Your task to perform on an android device: What's on my calendar tomorrow? Image 0: 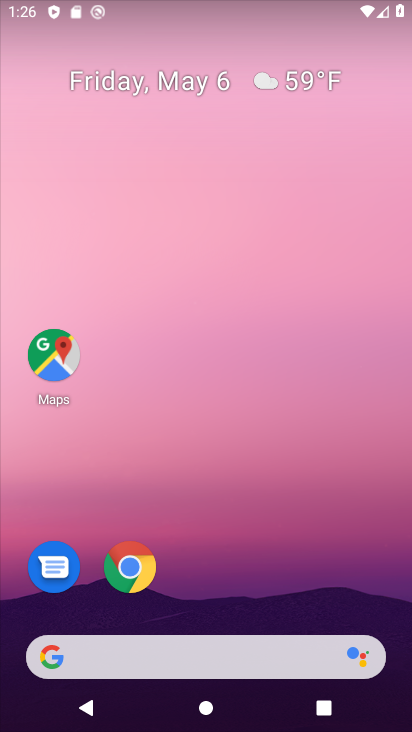
Step 0: drag from (307, 548) to (242, 0)
Your task to perform on an android device: What's on my calendar tomorrow? Image 1: 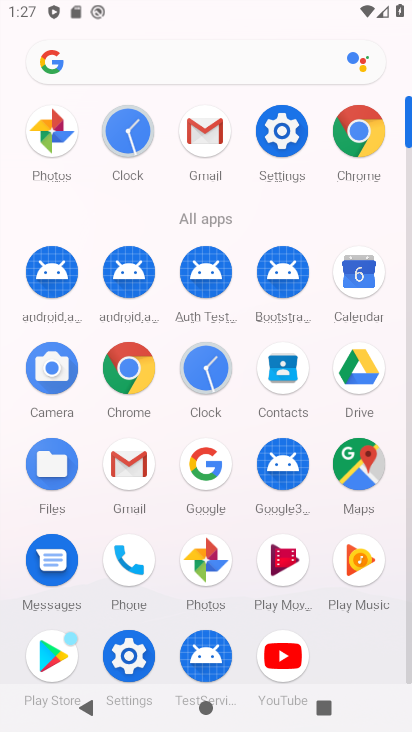
Step 1: click (360, 279)
Your task to perform on an android device: What's on my calendar tomorrow? Image 2: 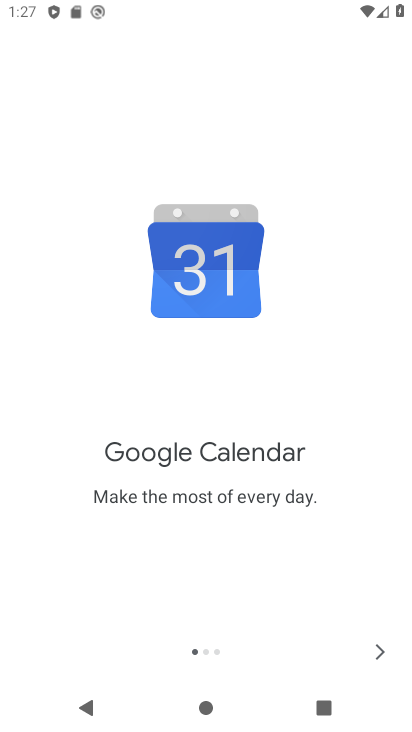
Step 2: click (377, 647)
Your task to perform on an android device: What's on my calendar tomorrow? Image 3: 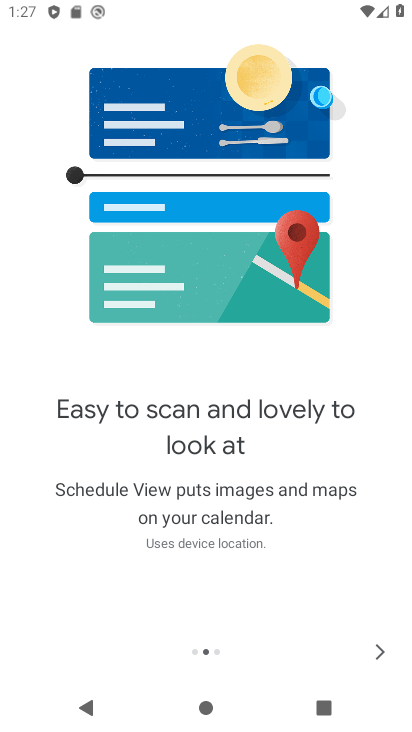
Step 3: click (377, 648)
Your task to perform on an android device: What's on my calendar tomorrow? Image 4: 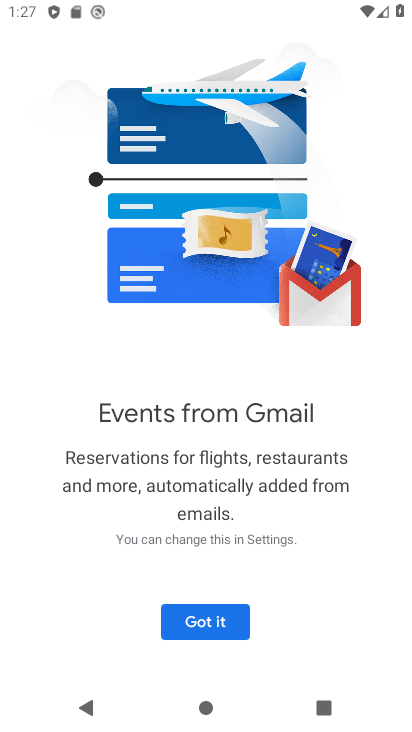
Step 4: click (377, 648)
Your task to perform on an android device: What's on my calendar tomorrow? Image 5: 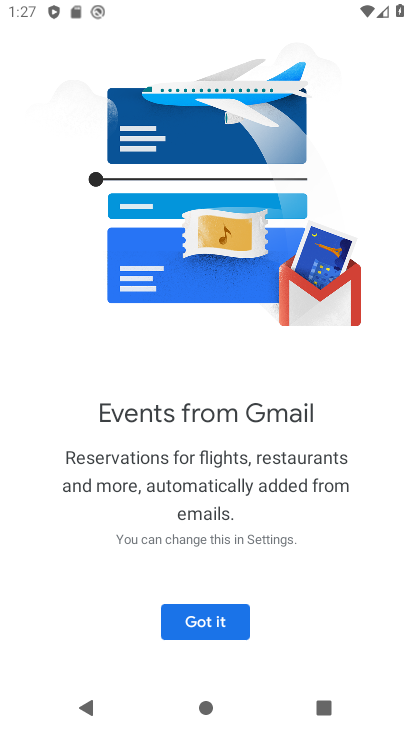
Step 5: click (200, 618)
Your task to perform on an android device: What's on my calendar tomorrow? Image 6: 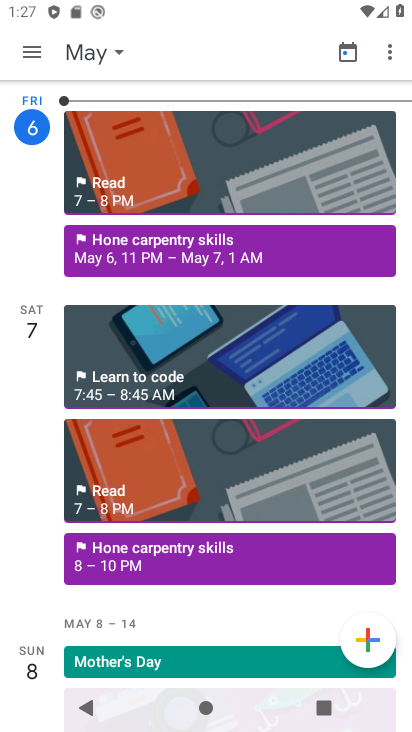
Step 6: click (37, 50)
Your task to perform on an android device: What's on my calendar tomorrow? Image 7: 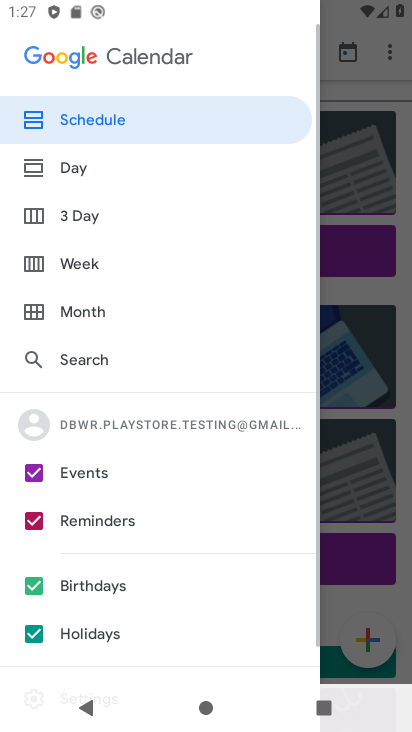
Step 7: click (84, 162)
Your task to perform on an android device: What's on my calendar tomorrow? Image 8: 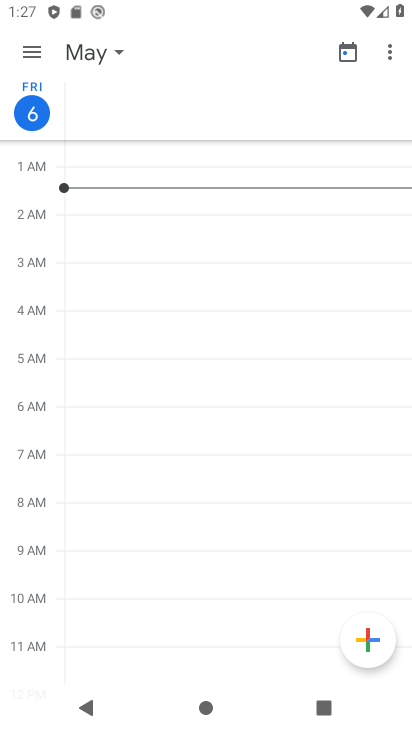
Step 8: click (113, 48)
Your task to perform on an android device: What's on my calendar tomorrow? Image 9: 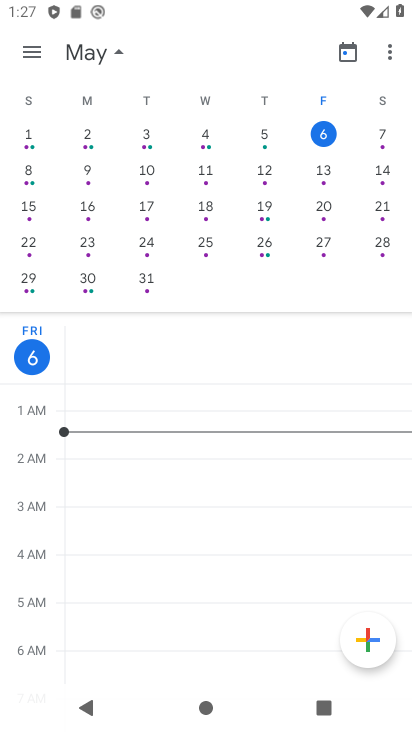
Step 9: click (381, 130)
Your task to perform on an android device: What's on my calendar tomorrow? Image 10: 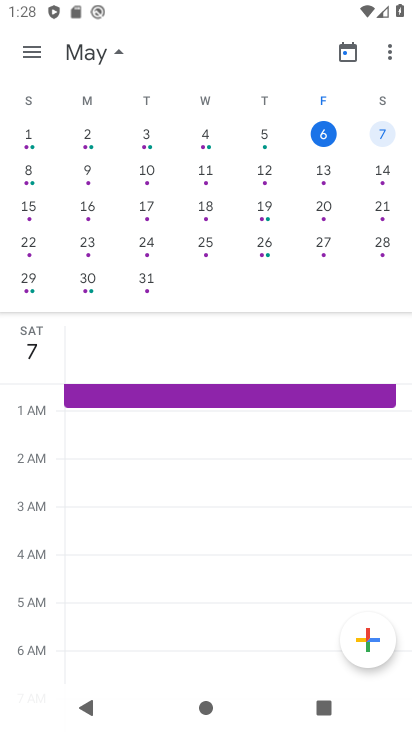
Step 10: task complete